Your task to perform on an android device: set an alarm Image 0: 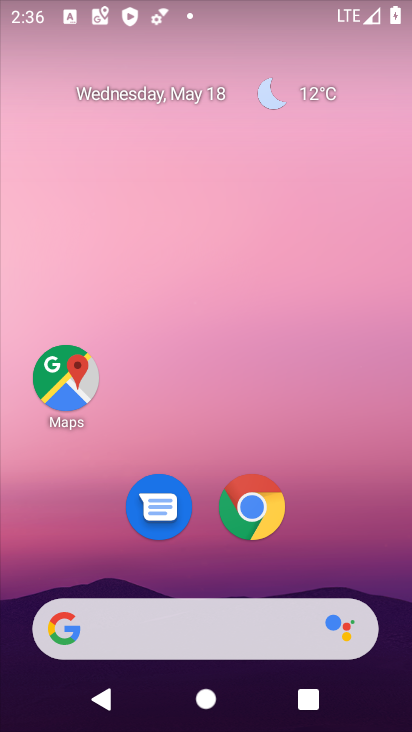
Step 0: drag from (399, 619) to (366, 180)
Your task to perform on an android device: set an alarm Image 1: 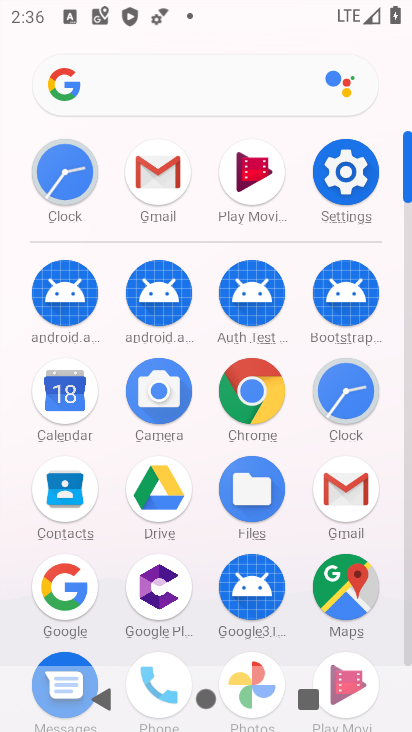
Step 1: click (407, 655)
Your task to perform on an android device: set an alarm Image 2: 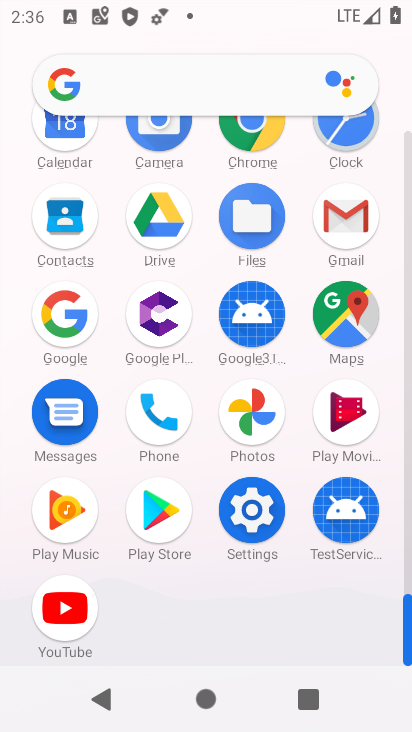
Step 2: click (345, 129)
Your task to perform on an android device: set an alarm Image 3: 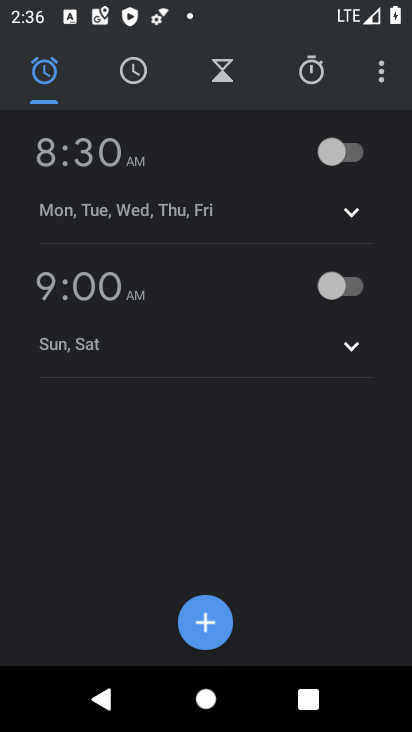
Step 3: click (74, 300)
Your task to perform on an android device: set an alarm Image 4: 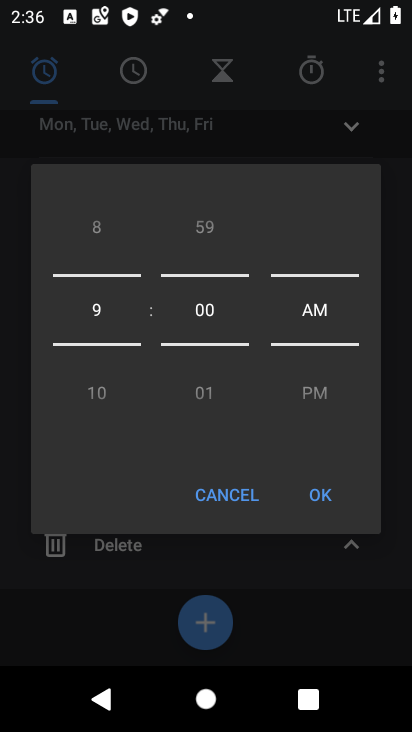
Step 4: drag from (107, 246) to (103, 428)
Your task to perform on an android device: set an alarm Image 5: 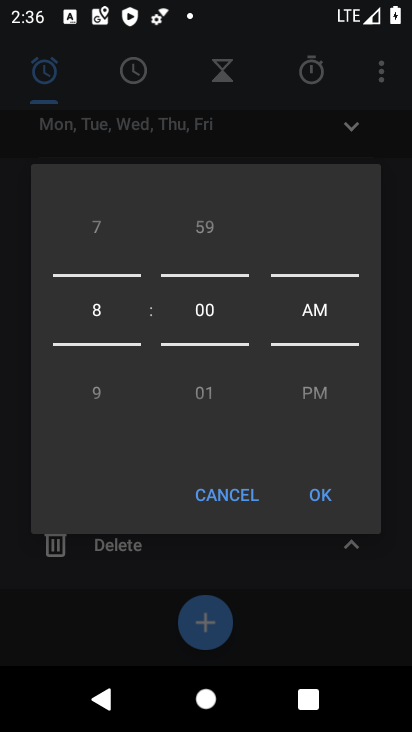
Step 5: drag from (107, 250) to (101, 408)
Your task to perform on an android device: set an alarm Image 6: 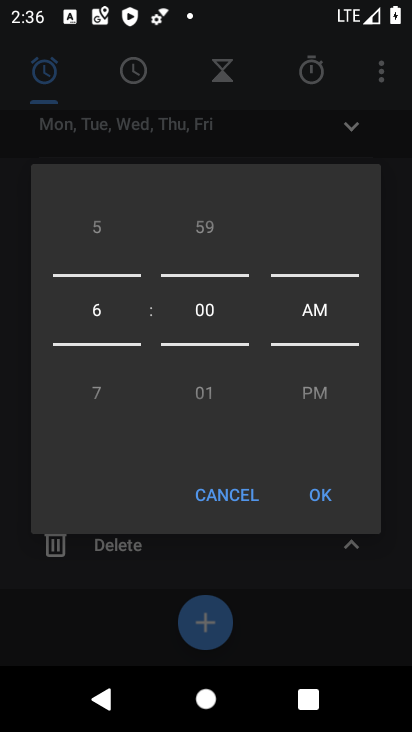
Step 6: click (326, 493)
Your task to perform on an android device: set an alarm Image 7: 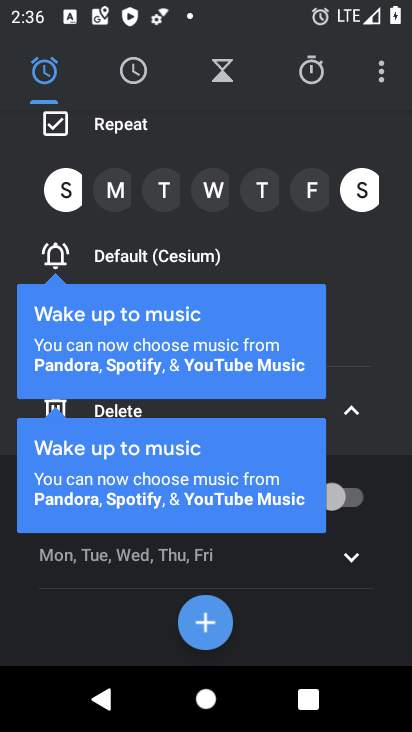
Step 7: click (99, 178)
Your task to perform on an android device: set an alarm Image 8: 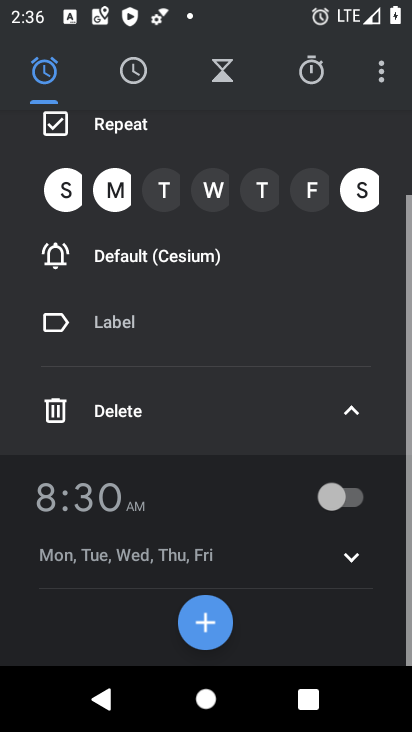
Step 8: click (154, 183)
Your task to perform on an android device: set an alarm Image 9: 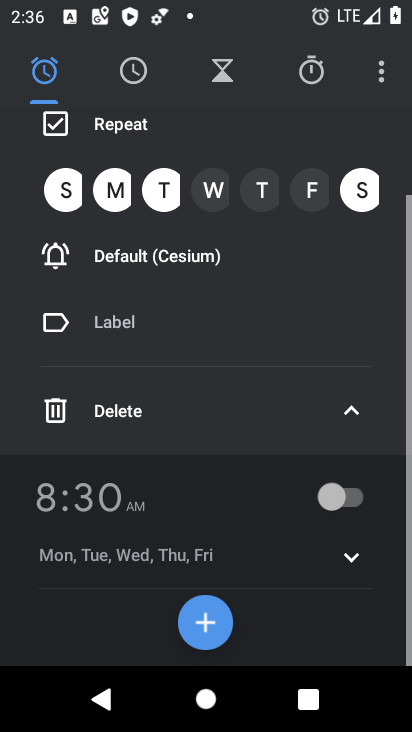
Step 9: click (206, 193)
Your task to perform on an android device: set an alarm Image 10: 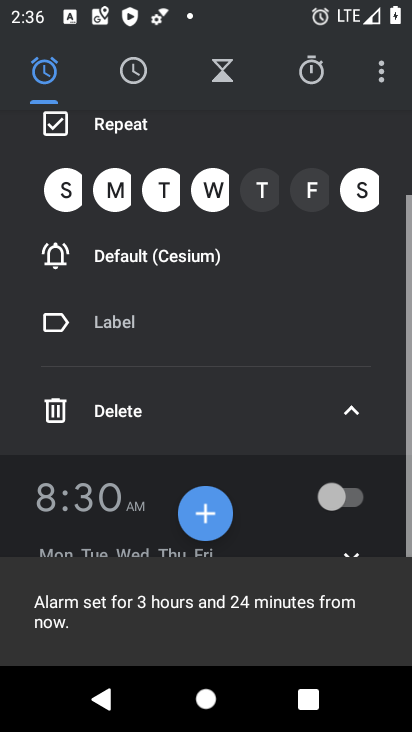
Step 10: click (273, 184)
Your task to perform on an android device: set an alarm Image 11: 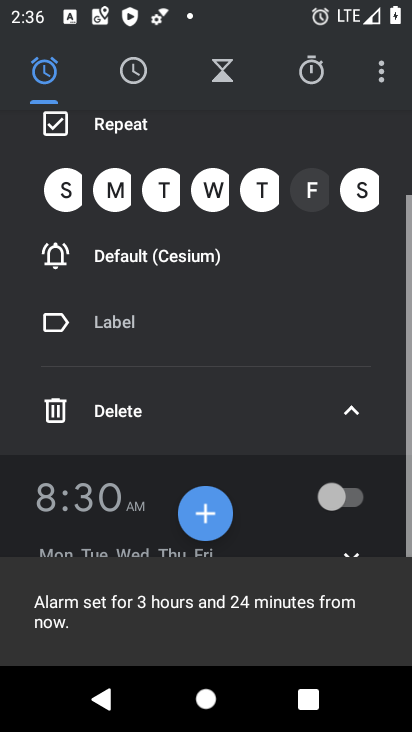
Step 11: click (306, 191)
Your task to perform on an android device: set an alarm Image 12: 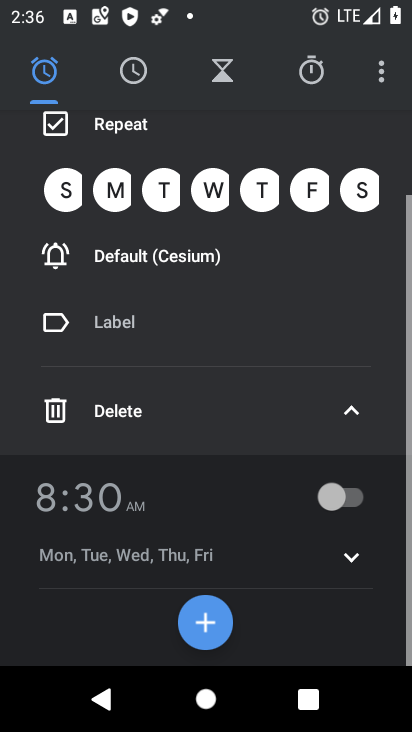
Step 12: click (64, 193)
Your task to perform on an android device: set an alarm Image 13: 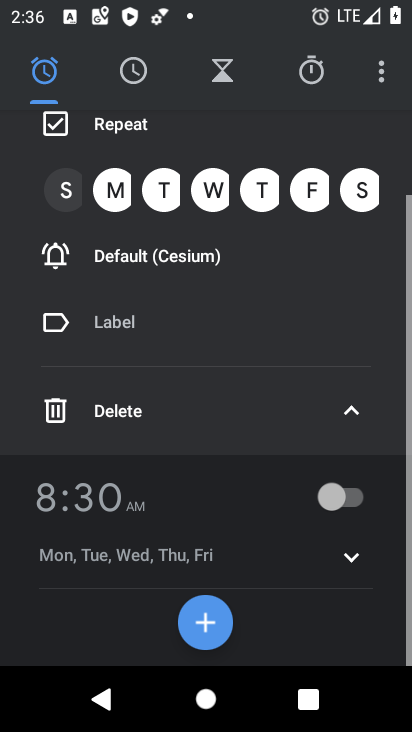
Step 13: click (354, 405)
Your task to perform on an android device: set an alarm Image 14: 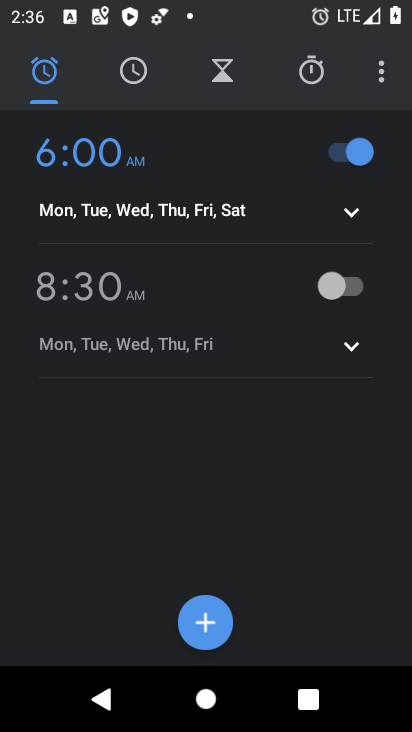
Step 14: task complete